Your task to perform on an android device: remove spam from my inbox in the gmail app Image 0: 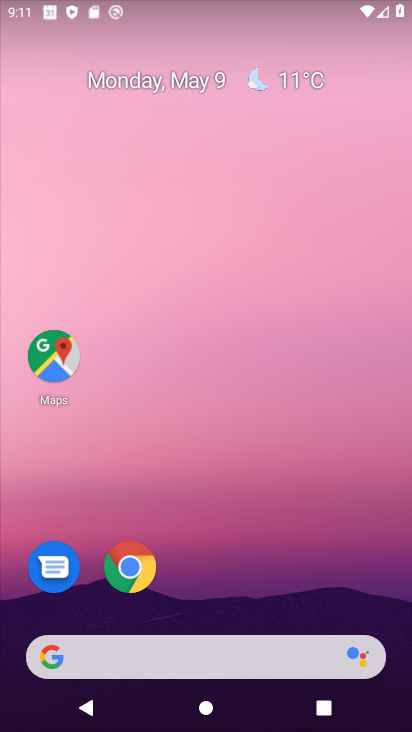
Step 0: drag from (215, 566) to (234, 33)
Your task to perform on an android device: remove spam from my inbox in the gmail app Image 1: 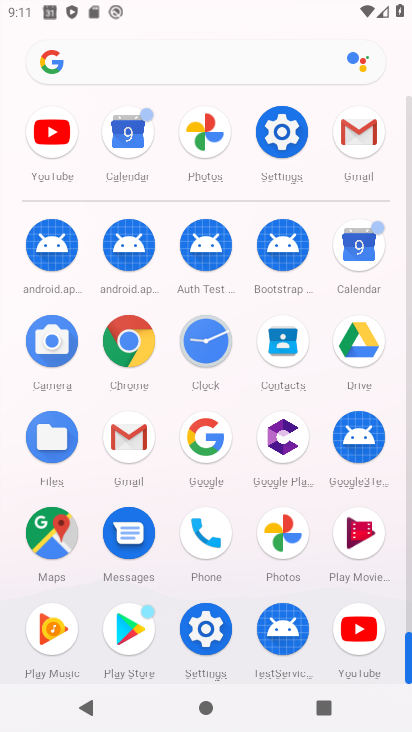
Step 1: click (367, 124)
Your task to perform on an android device: remove spam from my inbox in the gmail app Image 2: 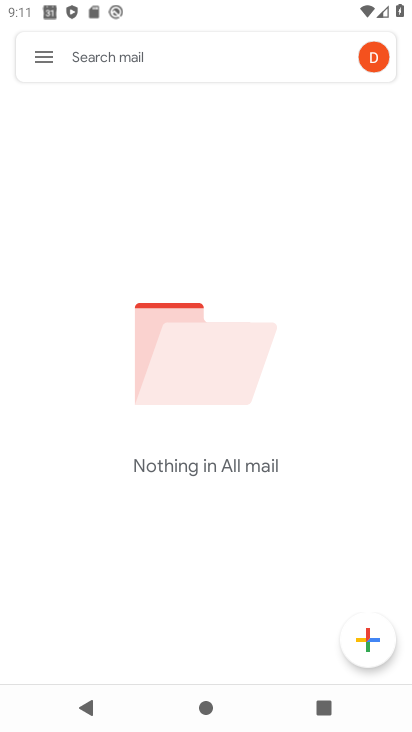
Step 2: click (38, 48)
Your task to perform on an android device: remove spam from my inbox in the gmail app Image 3: 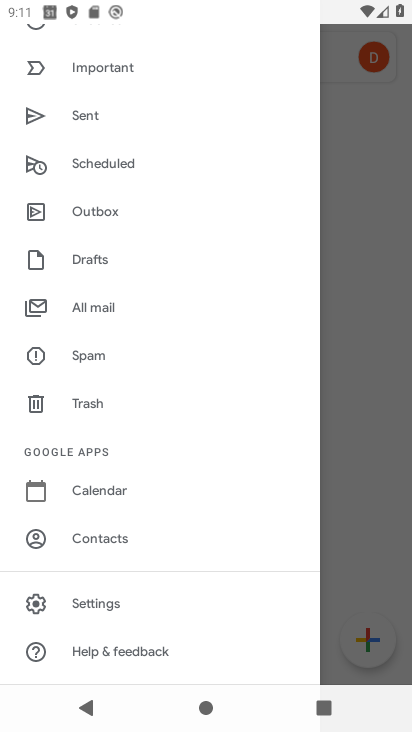
Step 3: click (87, 353)
Your task to perform on an android device: remove spam from my inbox in the gmail app Image 4: 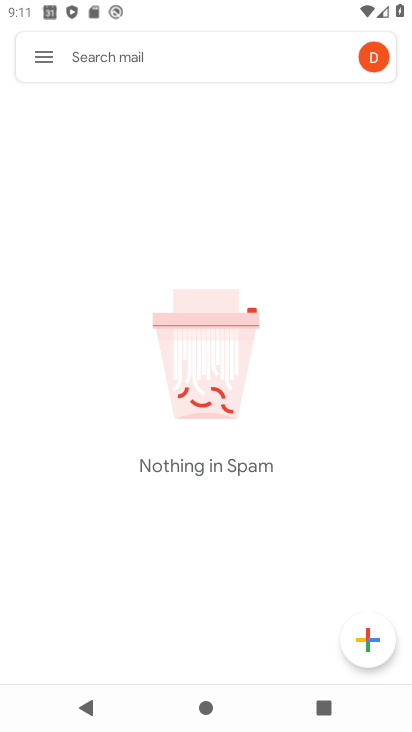
Step 4: task complete